Your task to perform on an android device: Open the stopwatch Image 0: 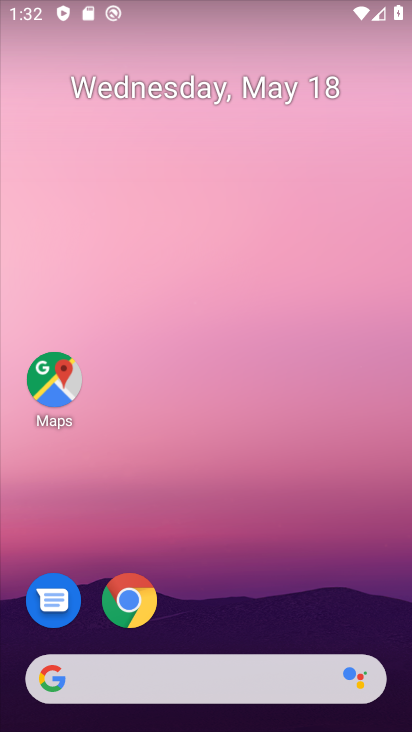
Step 0: drag from (176, 651) to (226, 172)
Your task to perform on an android device: Open the stopwatch Image 1: 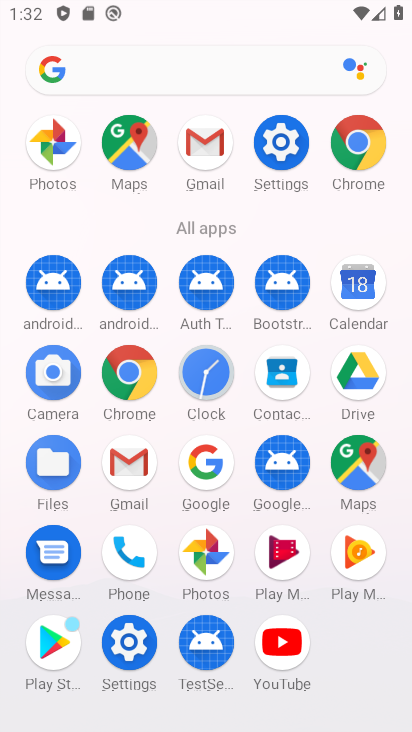
Step 1: click (206, 366)
Your task to perform on an android device: Open the stopwatch Image 2: 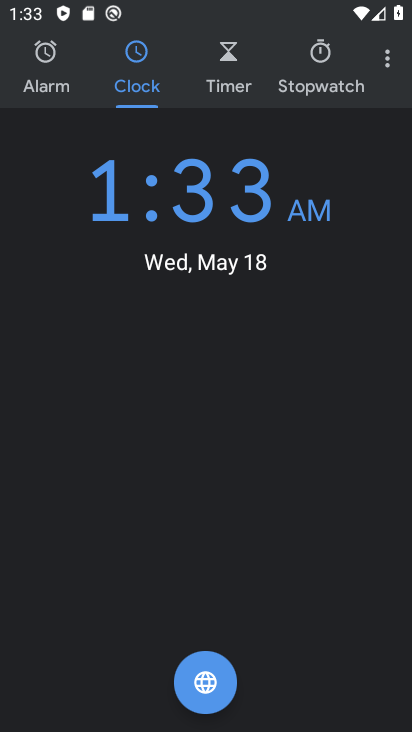
Step 2: click (333, 60)
Your task to perform on an android device: Open the stopwatch Image 3: 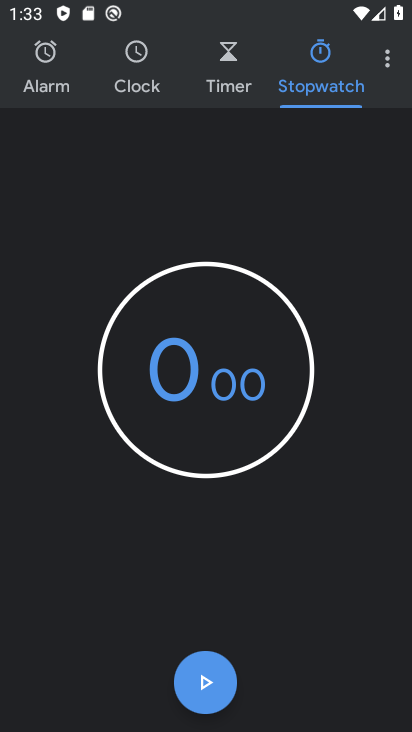
Step 3: task complete